Your task to perform on an android device: open a new tab in the chrome app Image 0: 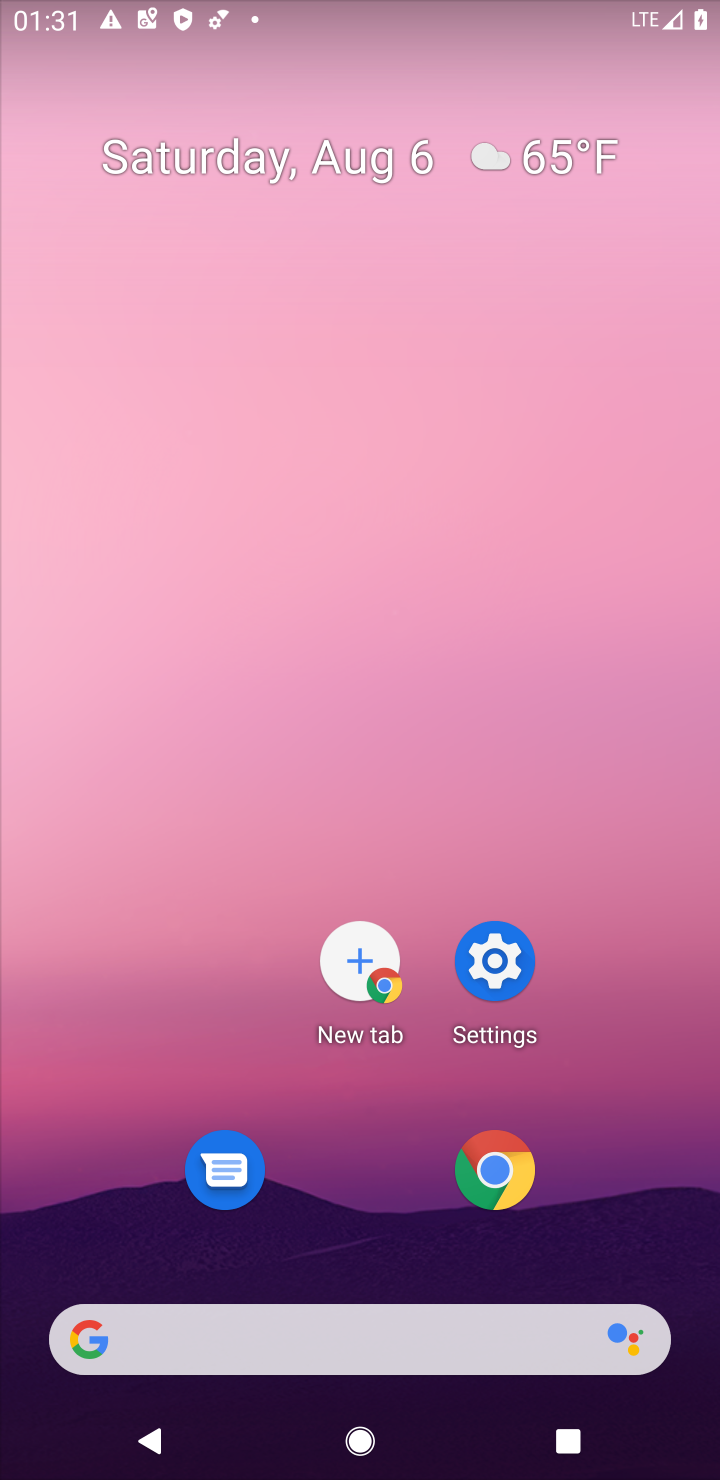
Step 0: click (475, 1161)
Your task to perform on an android device: open a new tab in the chrome app Image 1: 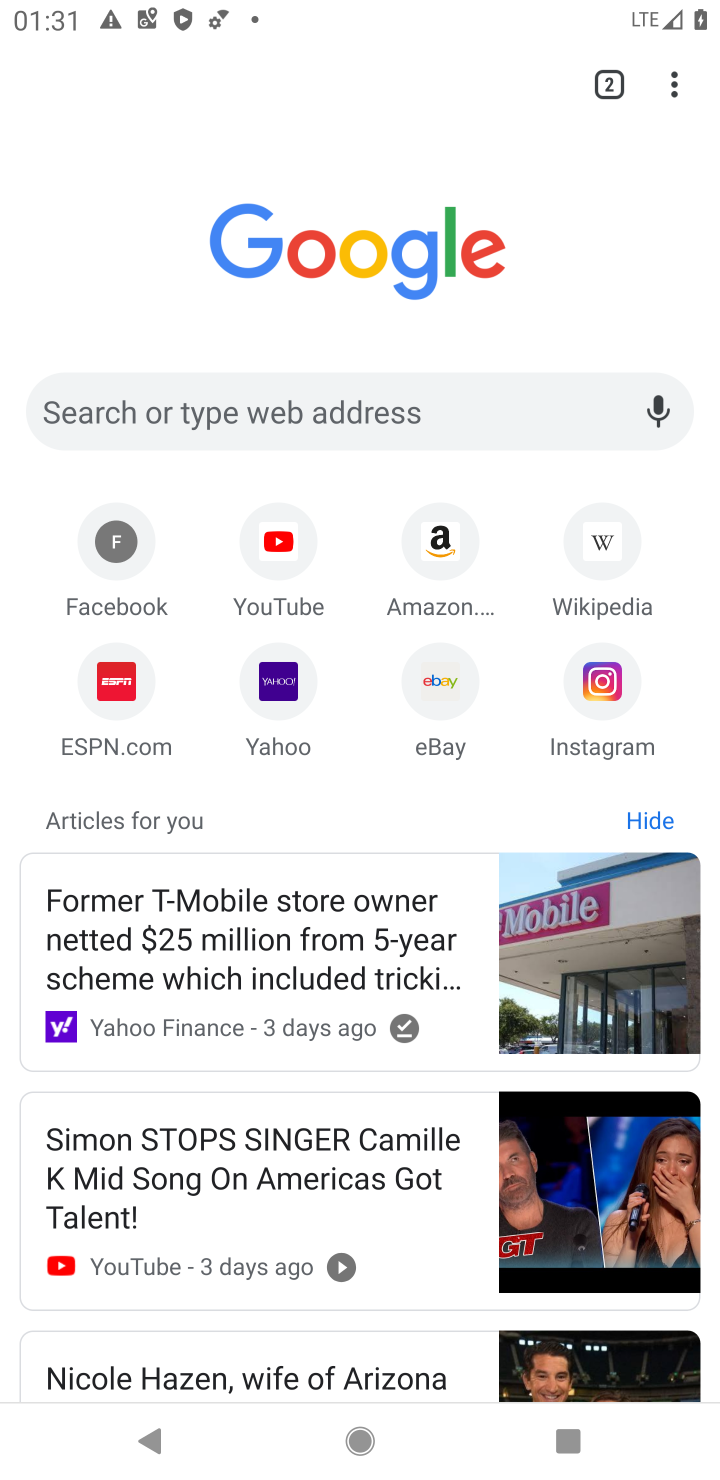
Step 1: click (671, 77)
Your task to perform on an android device: open a new tab in the chrome app Image 2: 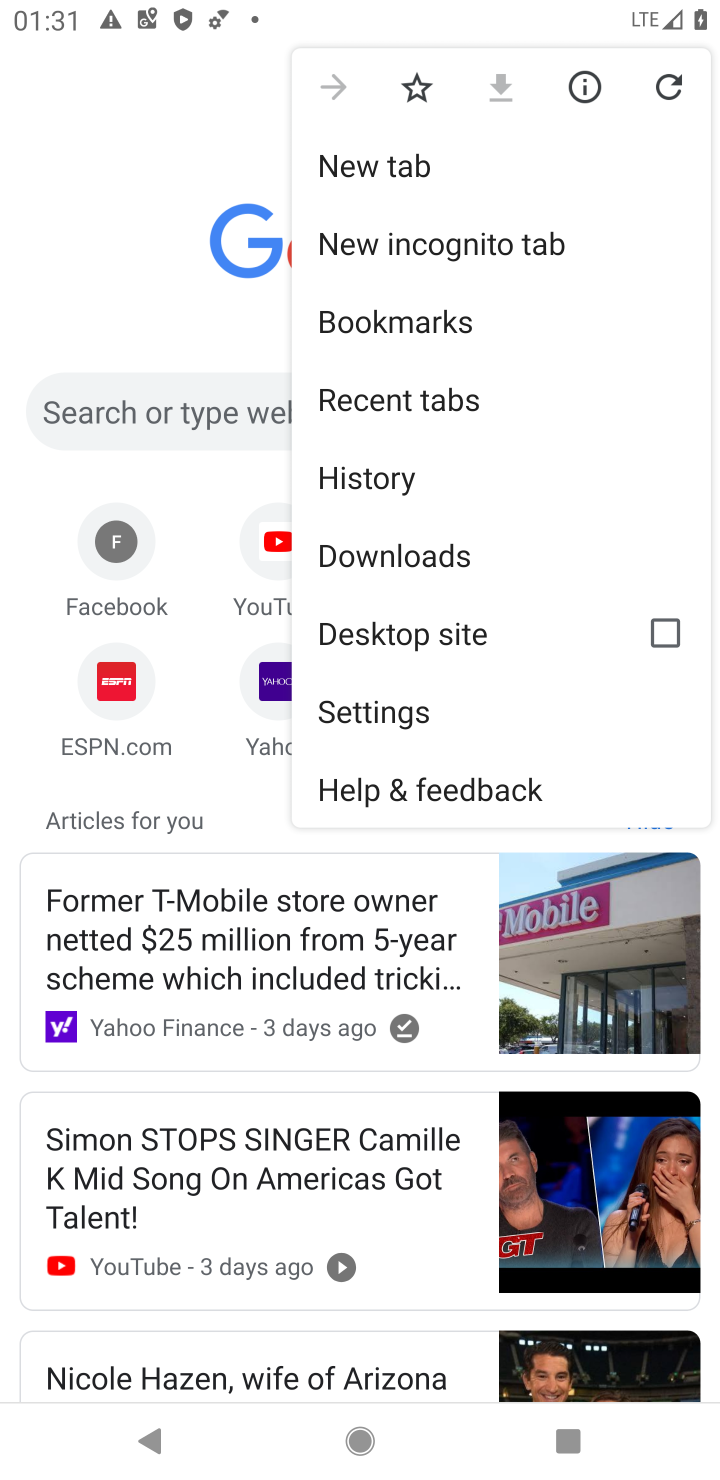
Step 2: click (436, 177)
Your task to perform on an android device: open a new tab in the chrome app Image 3: 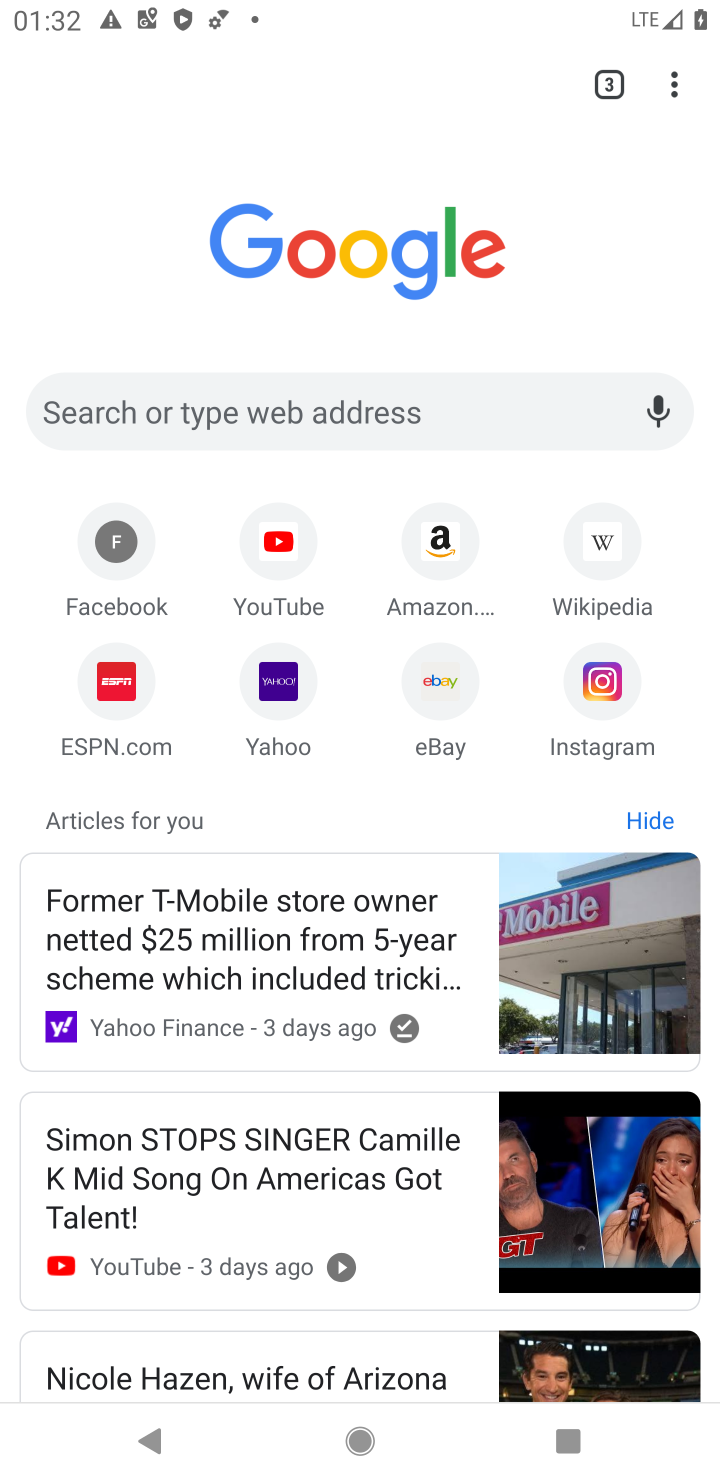
Step 3: click (669, 81)
Your task to perform on an android device: open a new tab in the chrome app Image 4: 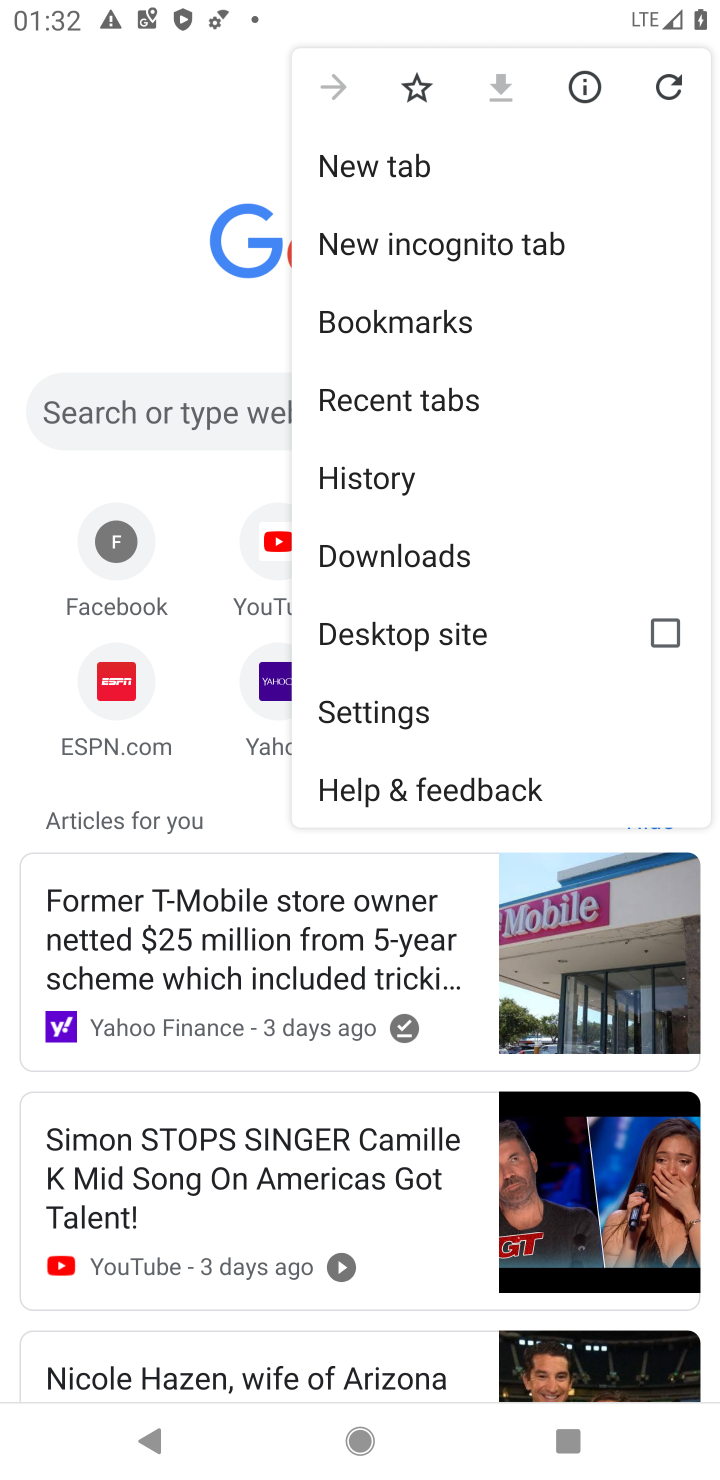
Step 4: click (394, 173)
Your task to perform on an android device: open a new tab in the chrome app Image 5: 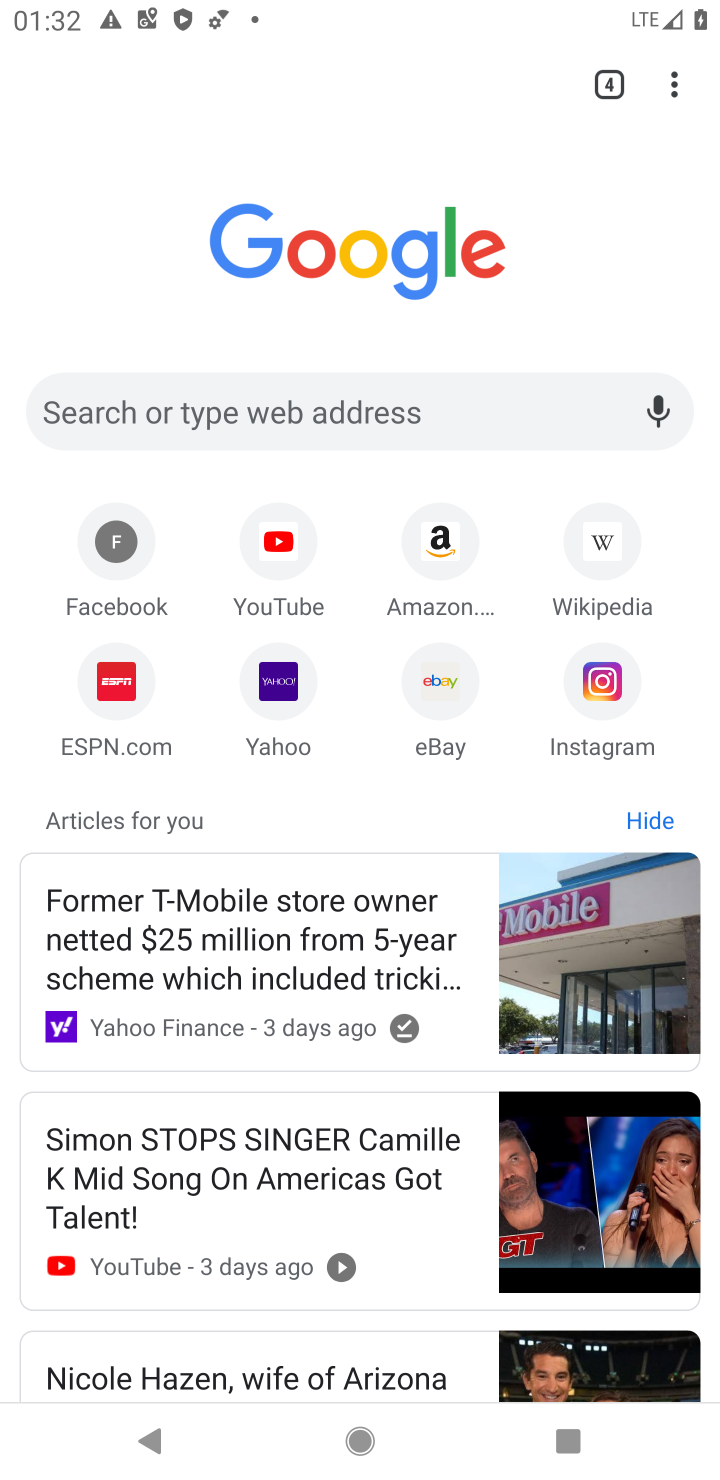
Step 5: task complete